Your task to perform on an android device: delete a single message in the gmail app Image 0: 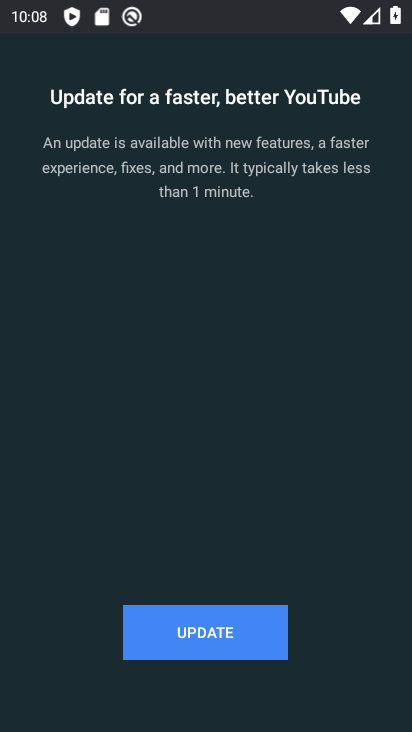
Step 0: task complete